Your task to perform on an android device: Go to privacy settings Image 0: 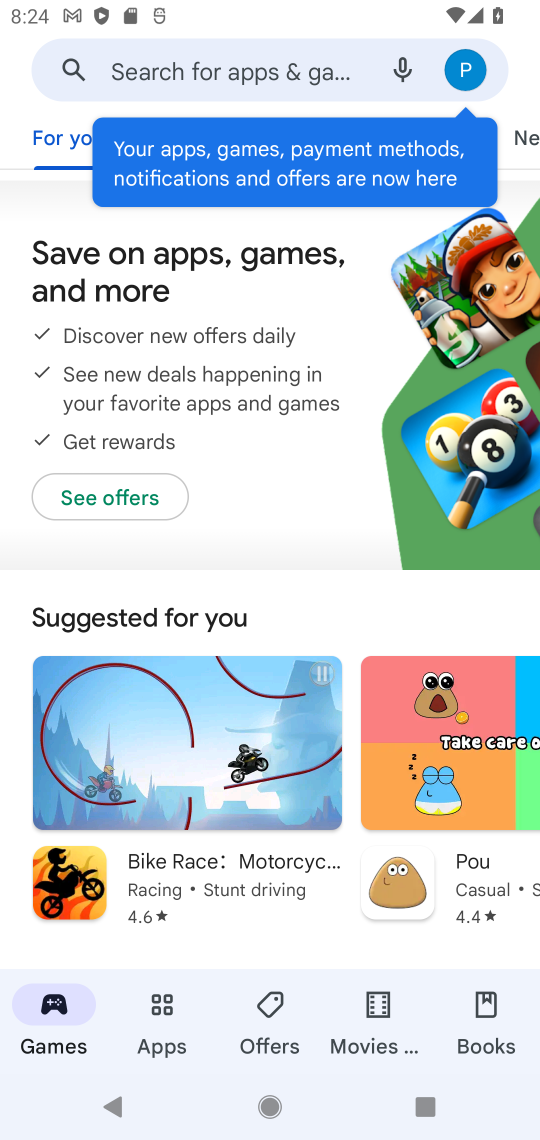
Step 0: press home button
Your task to perform on an android device: Go to privacy settings Image 1: 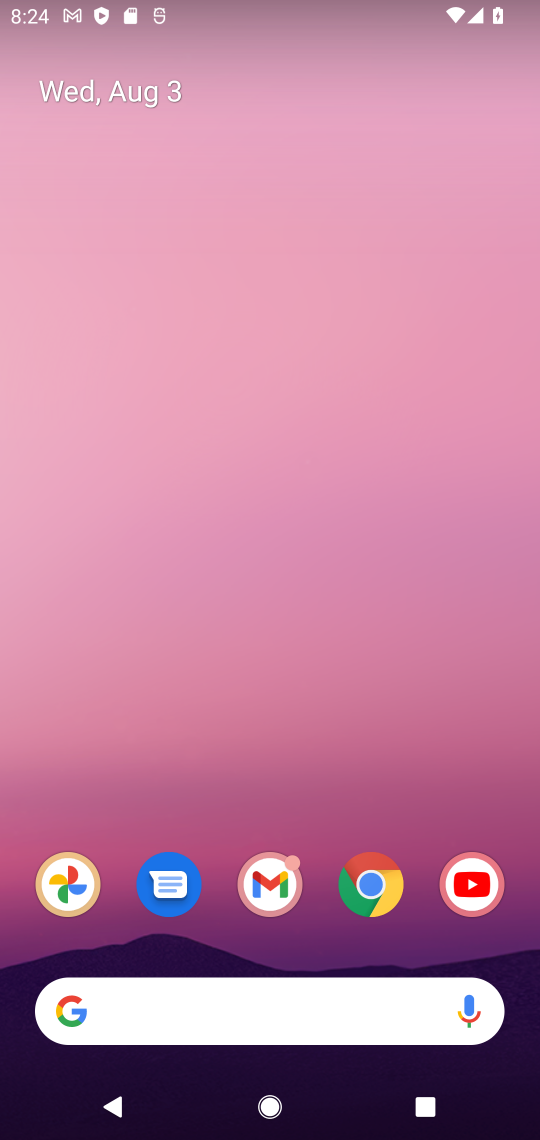
Step 1: drag from (111, 1087) to (291, 153)
Your task to perform on an android device: Go to privacy settings Image 2: 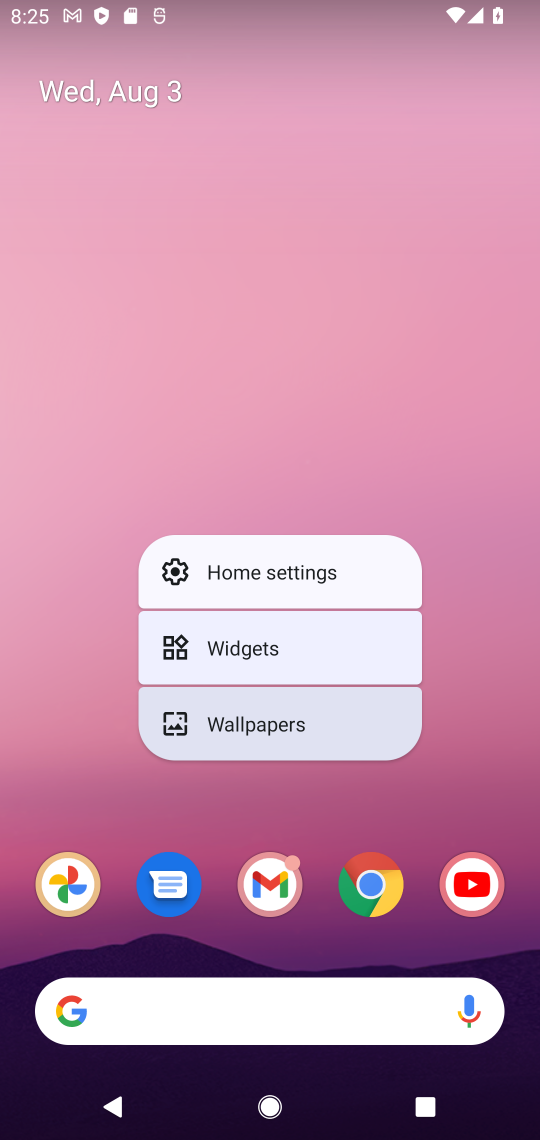
Step 2: drag from (57, 1106) to (58, 1)
Your task to perform on an android device: Go to privacy settings Image 3: 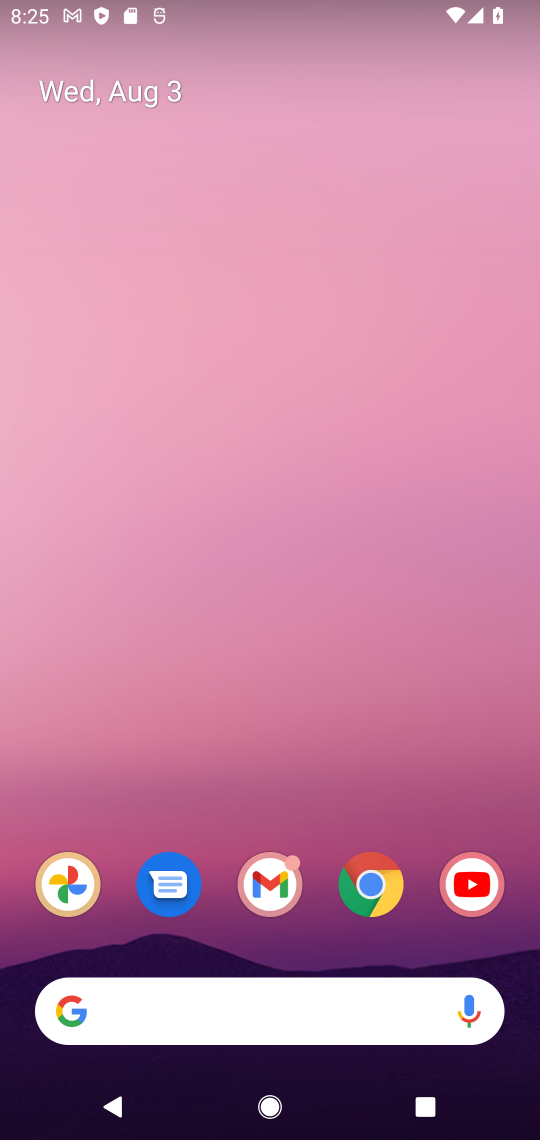
Step 3: drag from (127, 1016) to (163, 186)
Your task to perform on an android device: Go to privacy settings Image 4: 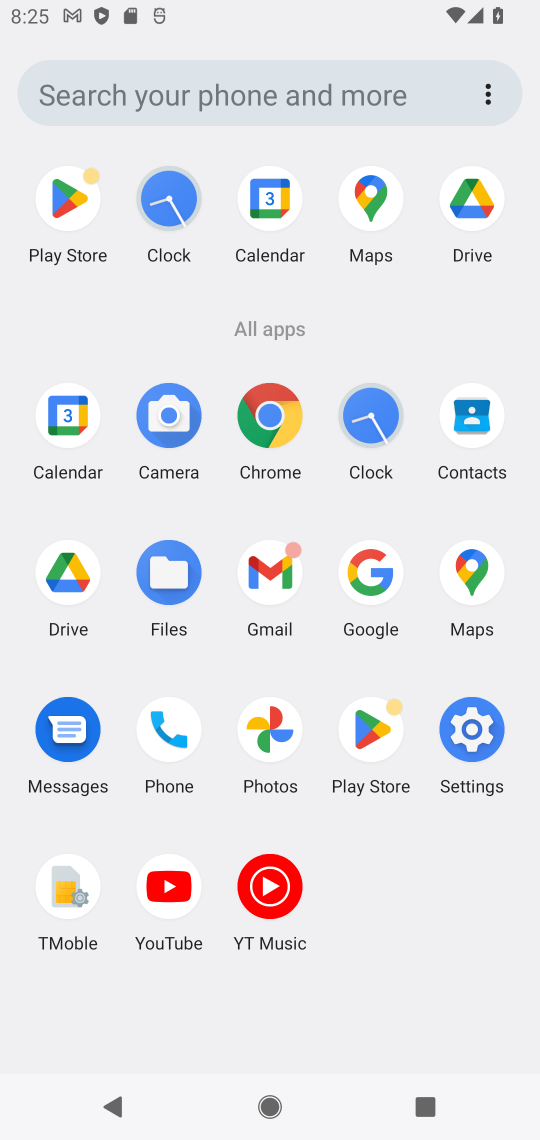
Step 4: click (470, 743)
Your task to perform on an android device: Go to privacy settings Image 5: 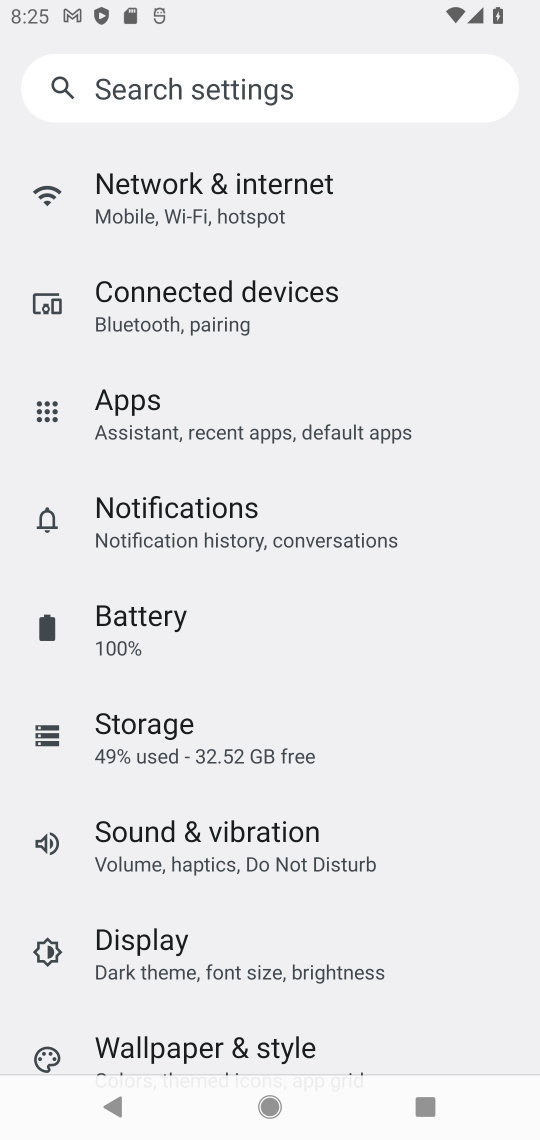
Step 5: click (216, 420)
Your task to perform on an android device: Go to privacy settings Image 6: 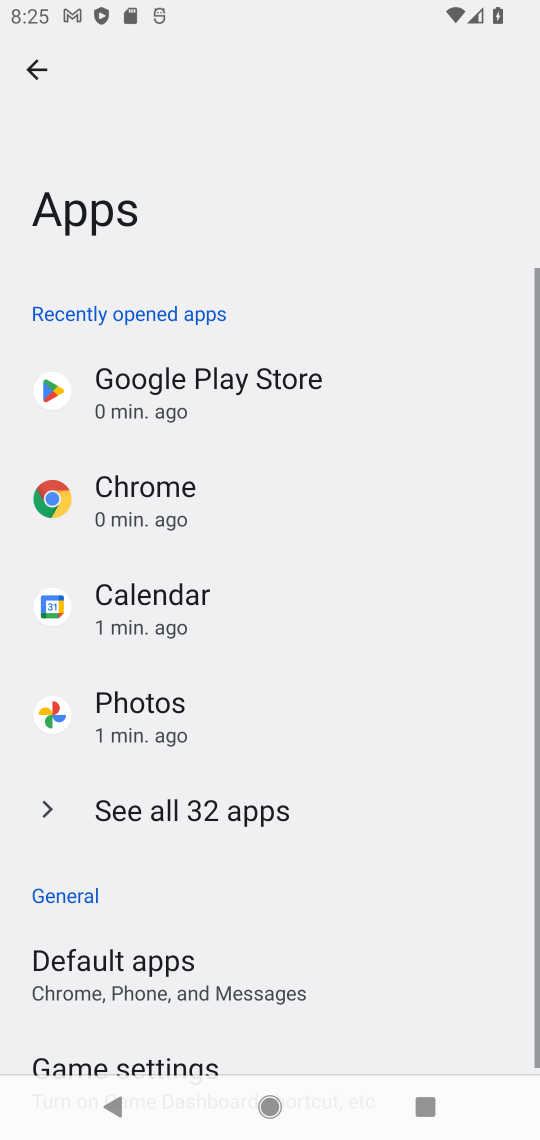
Step 6: task complete